Your task to perform on an android device: toggle translation in the chrome app Image 0: 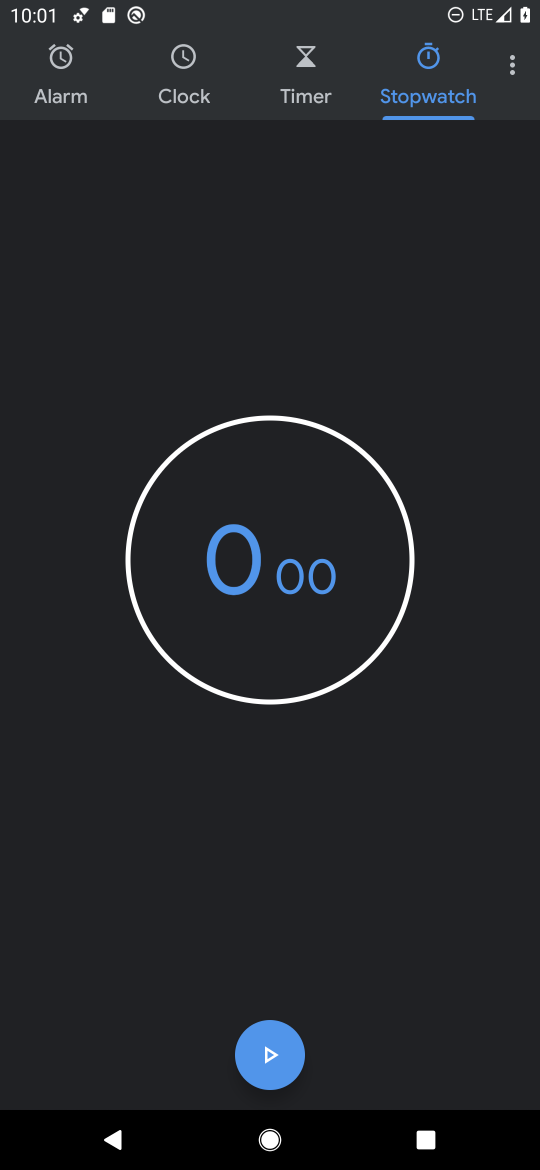
Step 0: press home button
Your task to perform on an android device: toggle translation in the chrome app Image 1: 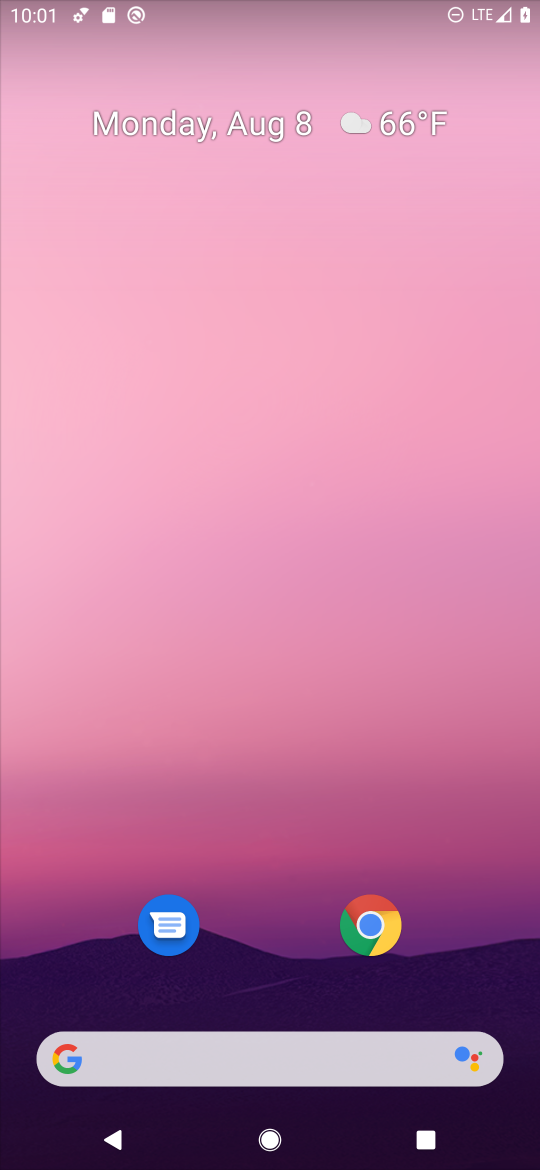
Step 1: drag from (440, 917) to (408, 214)
Your task to perform on an android device: toggle translation in the chrome app Image 2: 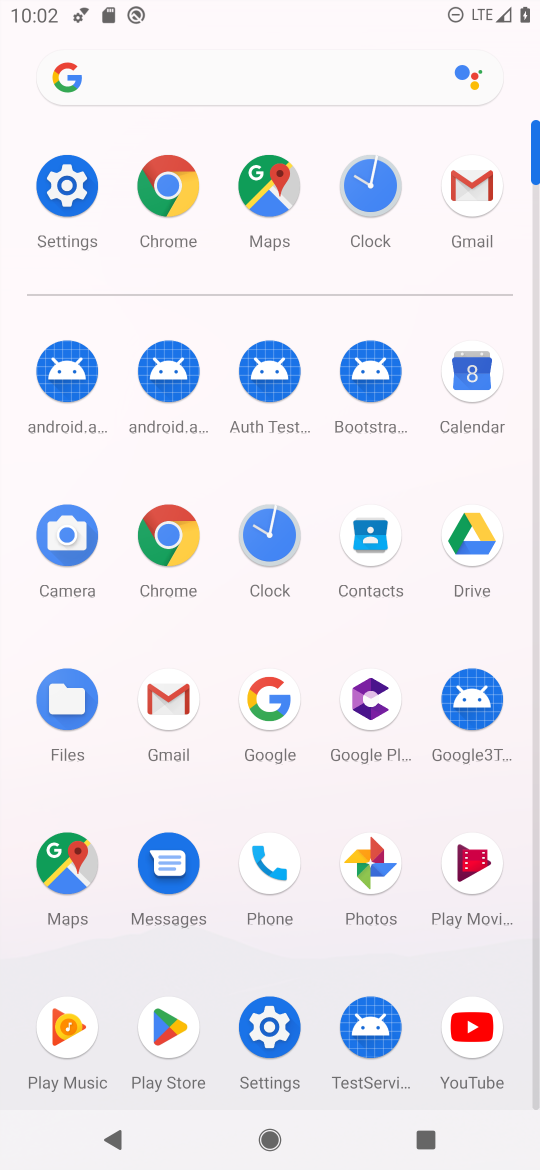
Step 2: click (170, 537)
Your task to perform on an android device: toggle translation in the chrome app Image 3: 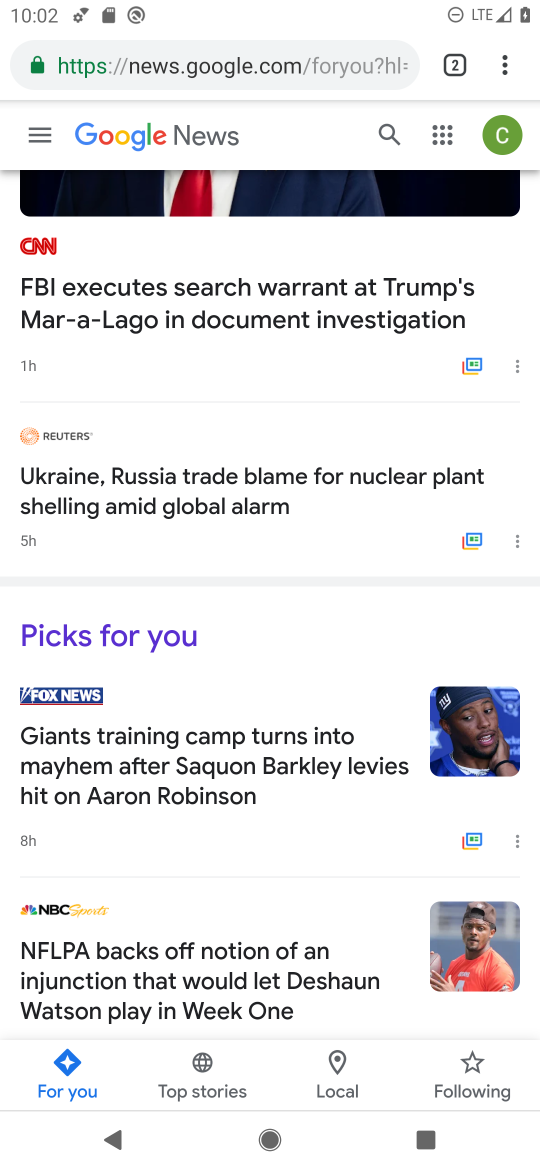
Step 3: drag from (499, 56) to (276, 862)
Your task to perform on an android device: toggle translation in the chrome app Image 4: 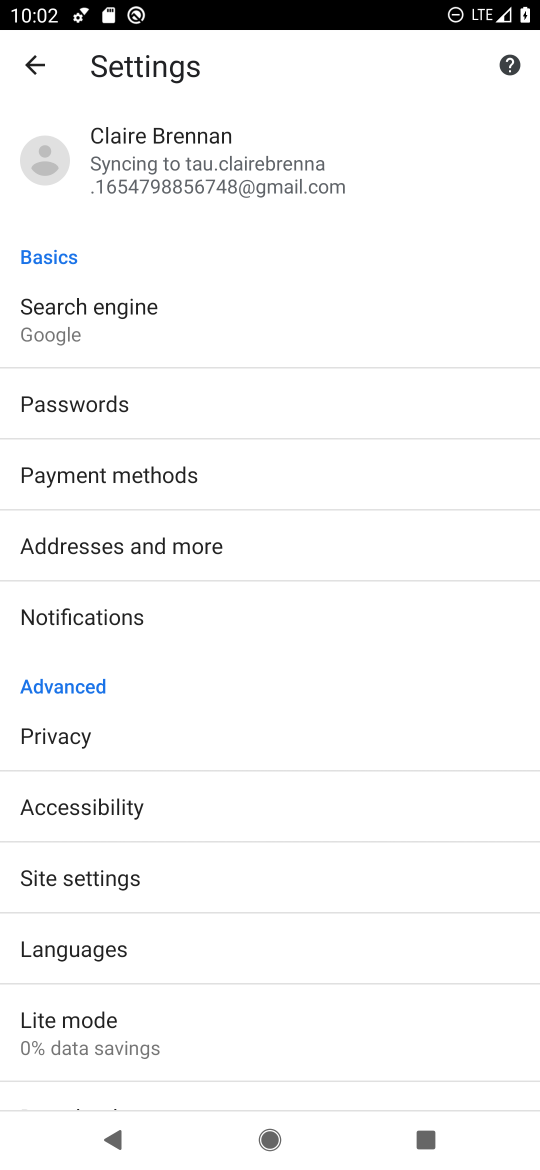
Step 4: drag from (245, 901) to (359, 363)
Your task to perform on an android device: toggle translation in the chrome app Image 5: 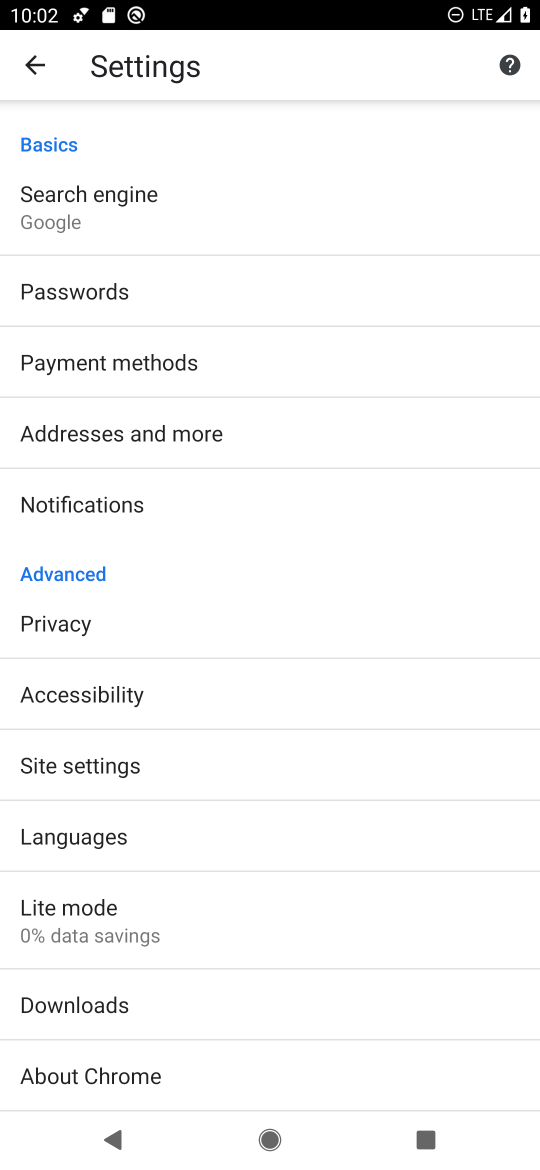
Step 5: click (97, 840)
Your task to perform on an android device: toggle translation in the chrome app Image 6: 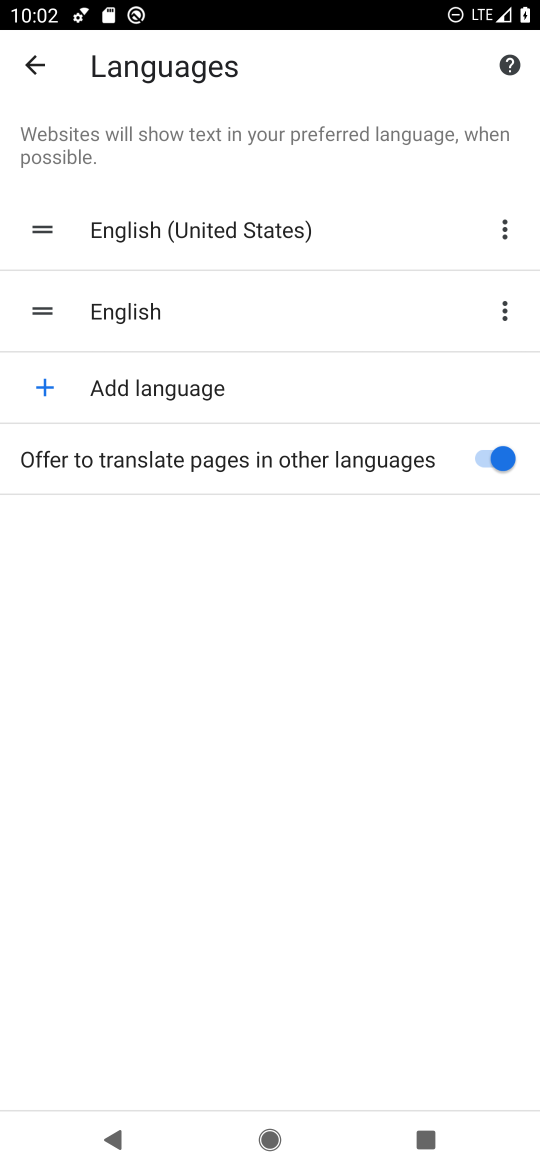
Step 6: click (490, 449)
Your task to perform on an android device: toggle translation in the chrome app Image 7: 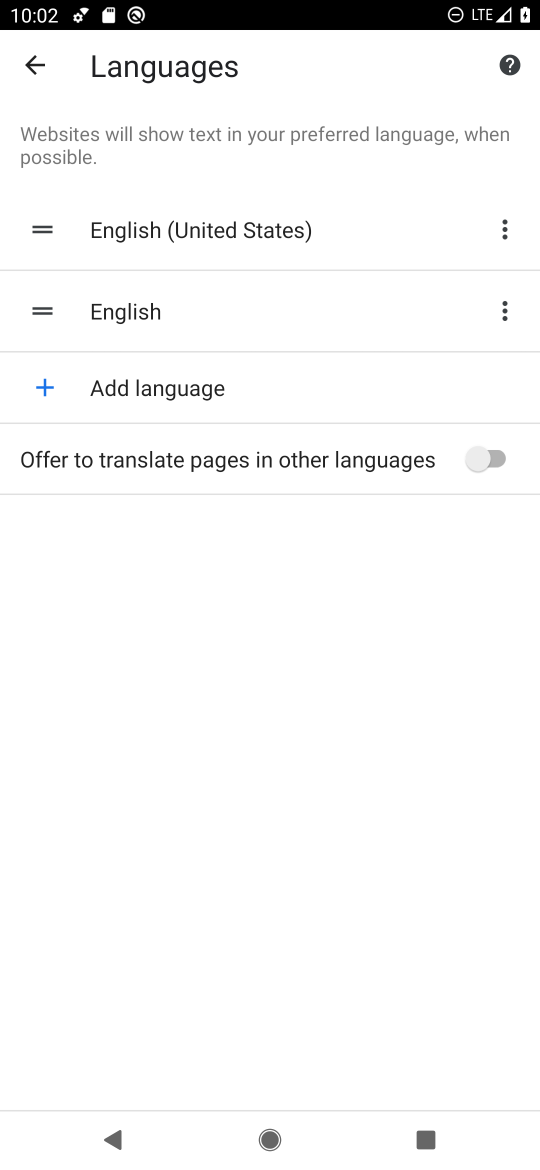
Step 7: task complete